Your task to perform on an android device: Go to calendar. Show me events next week Image 0: 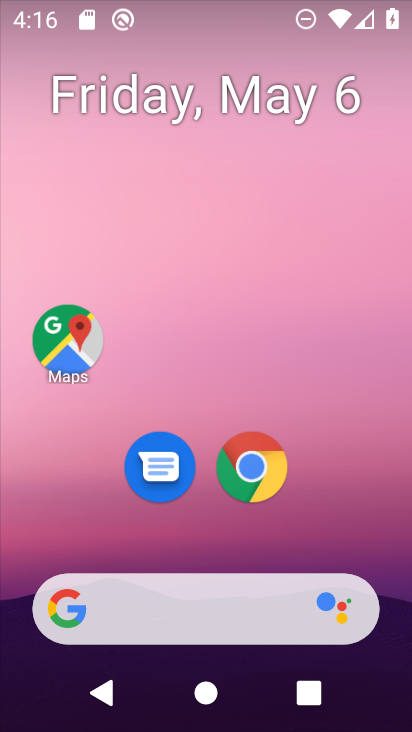
Step 0: drag from (312, 526) to (313, 0)
Your task to perform on an android device: Go to calendar. Show me events next week Image 1: 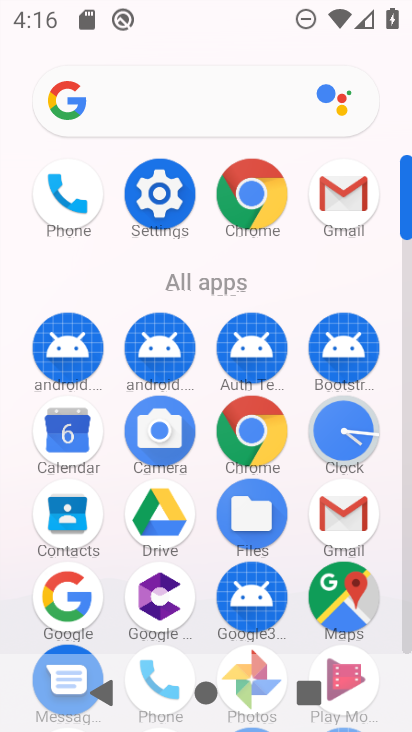
Step 1: click (60, 440)
Your task to perform on an android device: Go to calendar. Show me events next week Image 2: 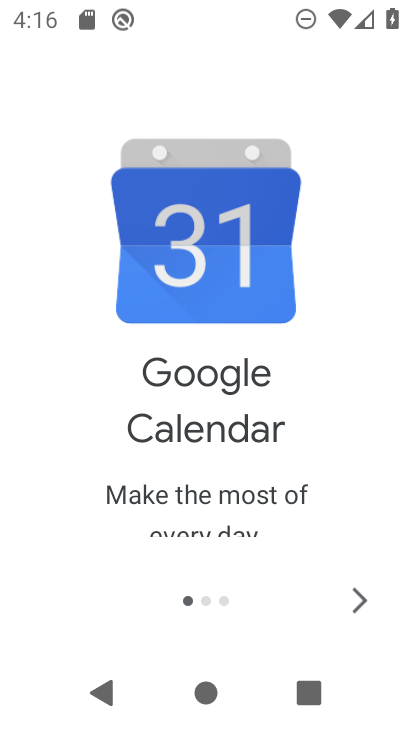
Step 2: click (358, 602)
Your task to perform on an android device: Go to calendar. Show me events next week Image 3: 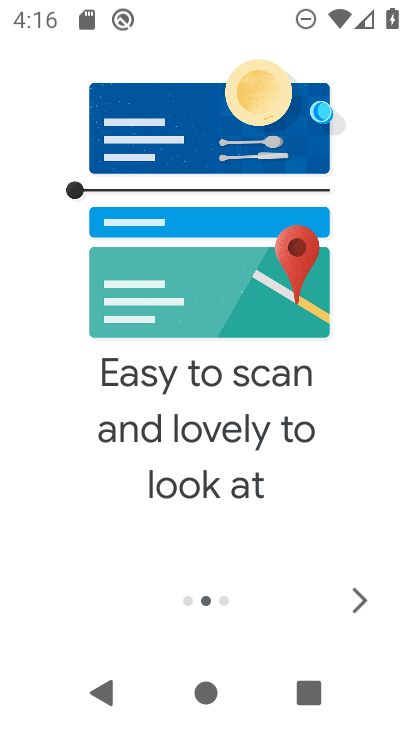
Step 3: click (358, 602)
Your task to perform on an android device: Go to calendar. Show me events next week Image 4: 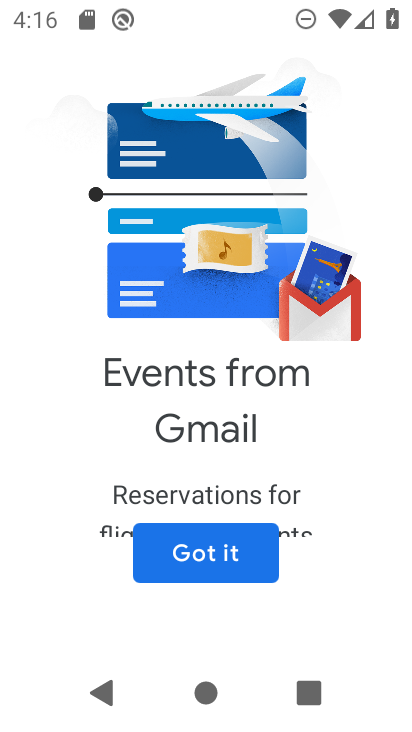
Step 4: click (203, 567)
Your task to perform on an android device: Go to calendar. Show me events next week Image 5: 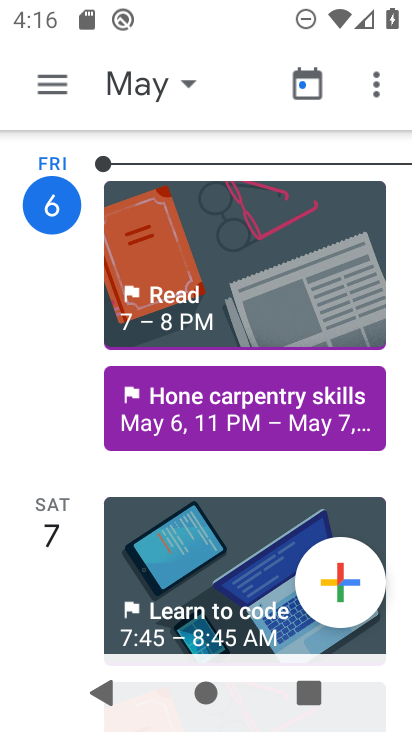
Step 5: click (369, 84)
Your task to perform on an android device: Go to calendar. Show me events next week Image 6: 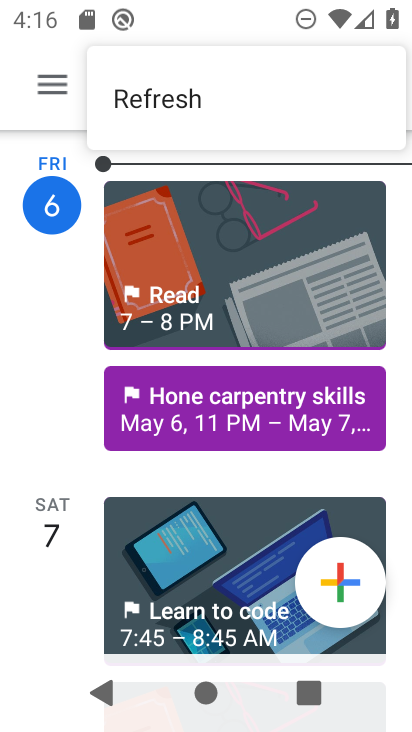
Step 6: click (60, 97)
Your task to perform on an android device: Go to calendar. Show me events next week Image 7: 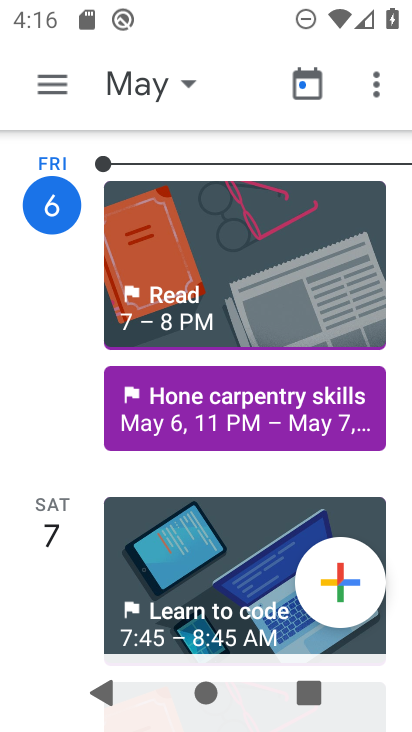
Step 7: click (57, 90)
Your task to perform on an android device: Go to calendar. Show me events next week Image 8: 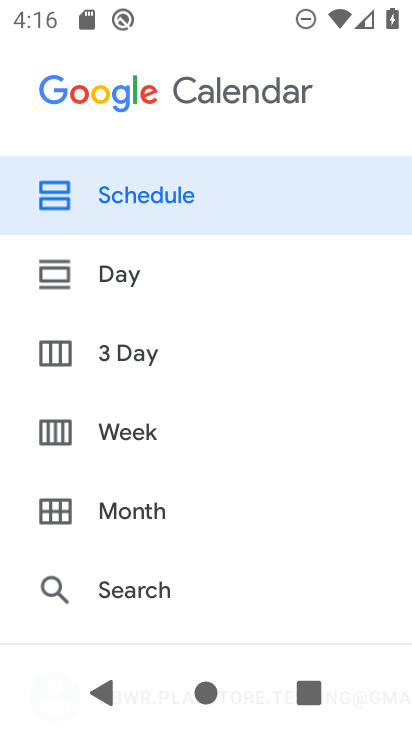
Step 8: click (129, 434)
Your task to perform on an android device: Go to calendar. Show me events next week Image 9: 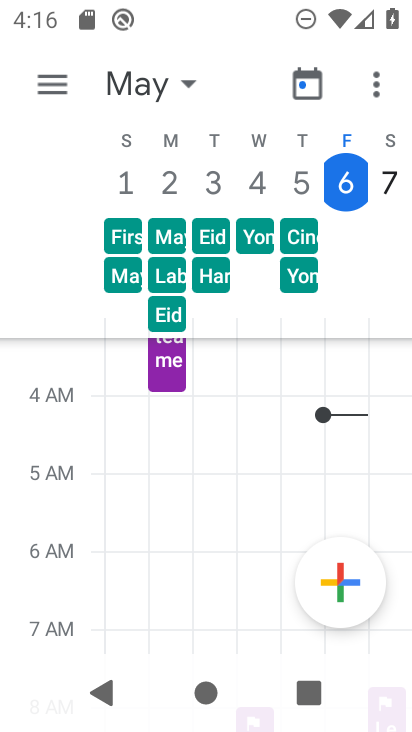
Step 9: click (137, 77)
Your task to perform on an android device: Go to calendar. Show me events next week Image 10: 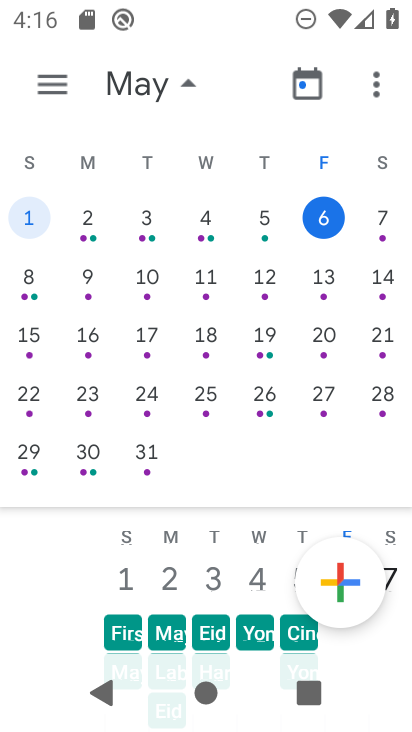
Step 10: click (25, 281)
Your task to perform on an android device: Go to calendar. Show me events next week Image 11: 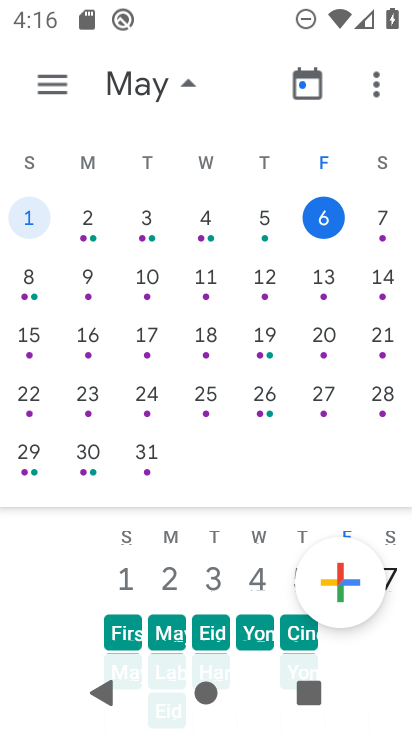
Step 11: click (28, 283)
Your task to perform on an android device: Go to calendar. Show me events next week Image 12: 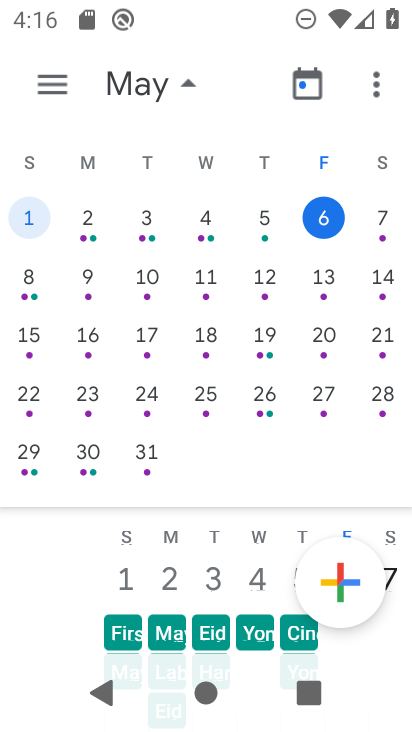
Step 12: click (33, 288)
Your task to perform on an android device: Go to calendar. Show me events next week Image 13: 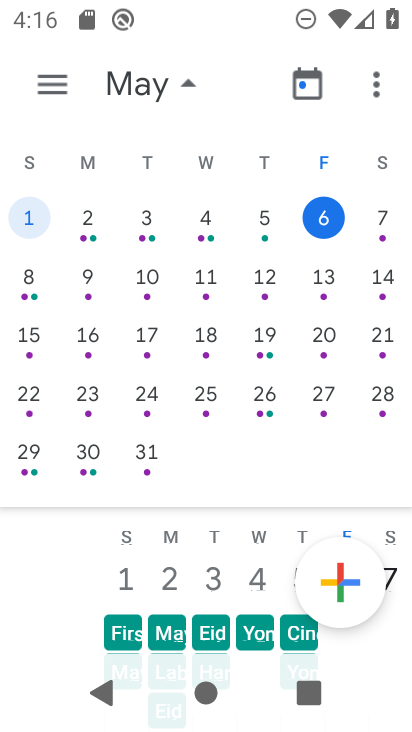
Step 13: click (30, 272)
Your task to perform on an android device: Go to calendar. Show me events next week Image 14: 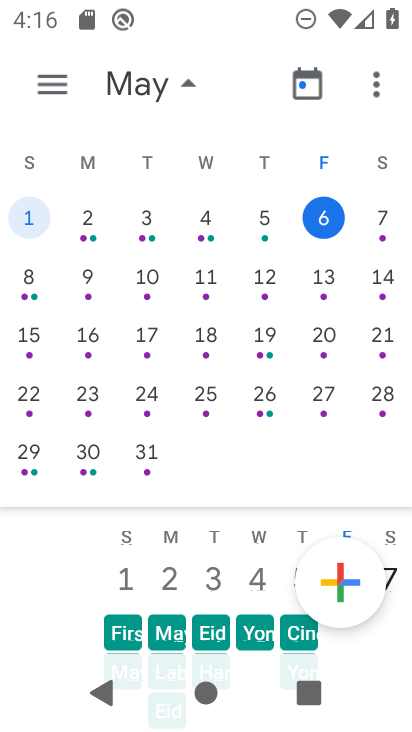
Step 14: click (39, 278)
Your task to perform on an android device: Go to calendar. Show me events next week Image 15: 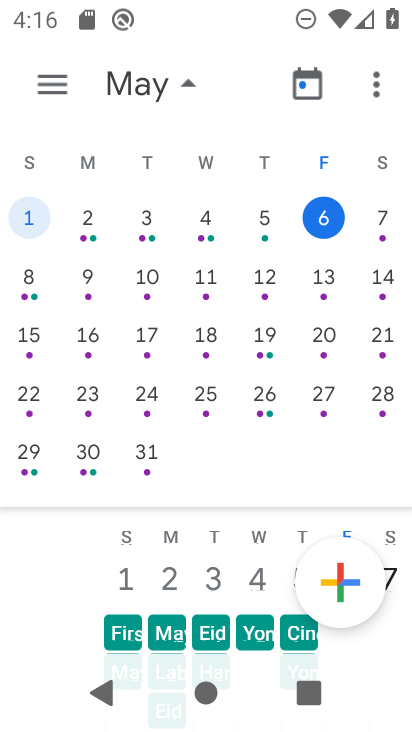
Step 15: click (54, 86)
Your task to perform on an android device: Go to calendar. Show me events next week Image 16: 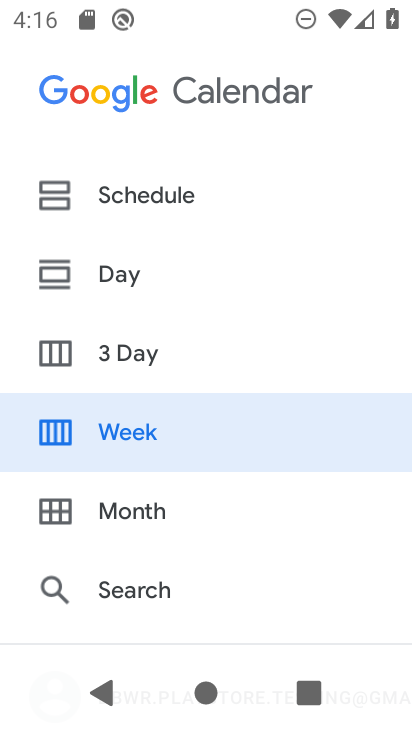
Step 16: click (133, 415)
Your task to perform on an android device: Go to calendar. Show me events next week Image 17: 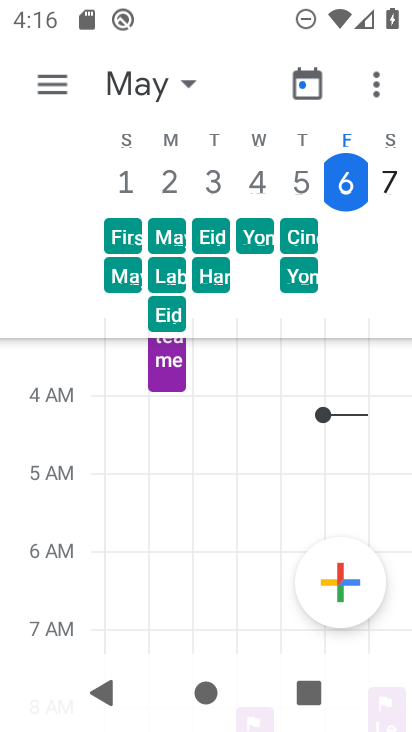
Step 17: click (127, 87)
Your task to perform on an android device: Go to calendar. Show me events next week Image 18: 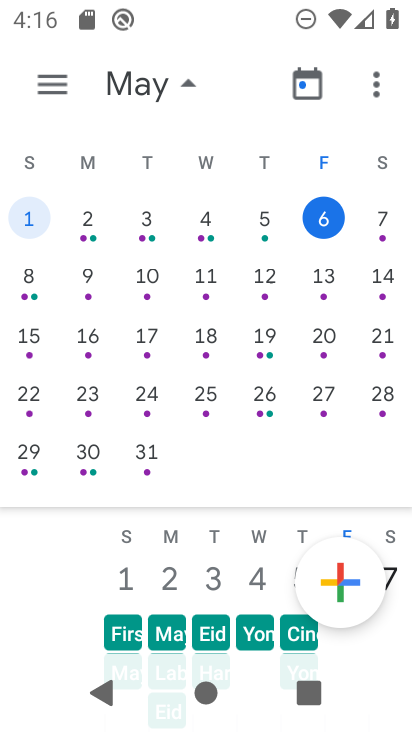
Step 18: click (28, 276)
Your task to perform on an android device: Go to calendar. Show me events next week Image 19: 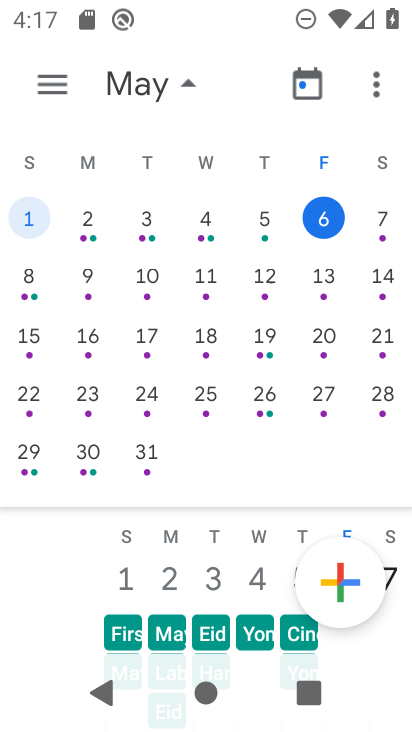
Step 19: click (30, 278)
Your task to perform on an android device: Go to calendar. Show me events next week Image 20: 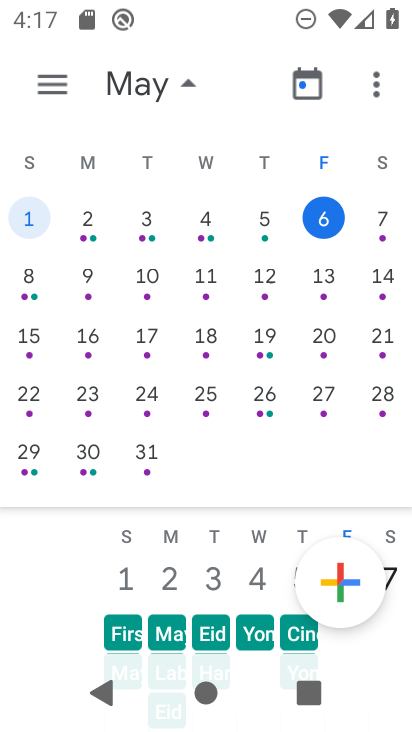
Step 20: click (31, 291)
Your task to perform on an android device: Go to calendar. Show me events next week Image 21: 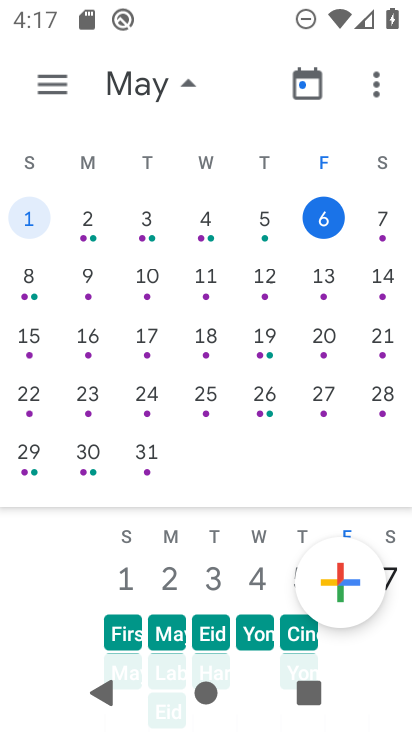
Step 21: click (31, 291)
Your task to perform on an android device: Go to calendar. Show me events next week Image 22: 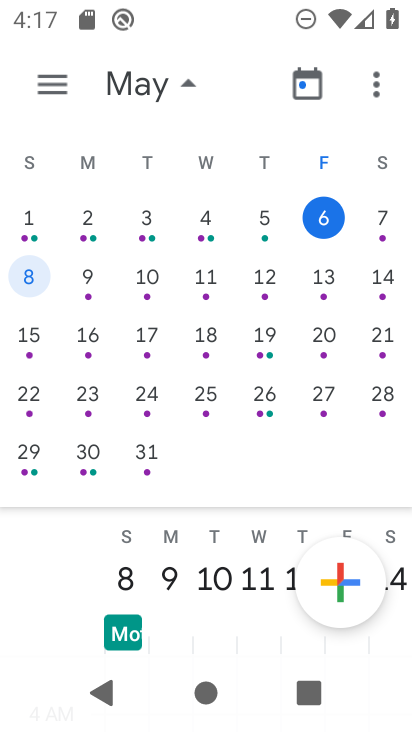
Step 22: task complete